Your task to perform on an android device: add a contact in the contacts app Image 0: 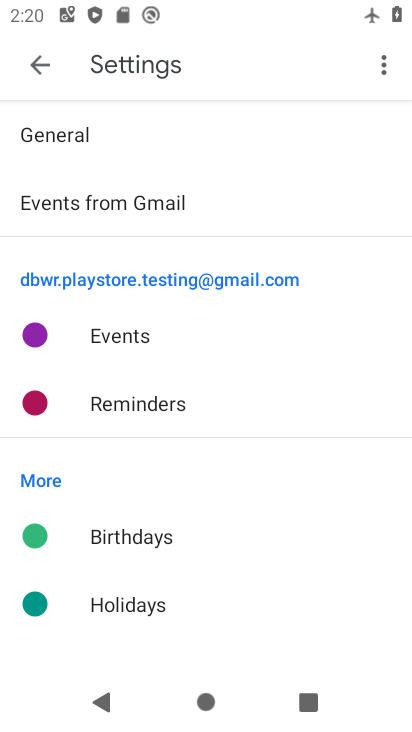
Step 0: press back button
Your task to perform on an android device: add a contact in the contacts app Image 1: 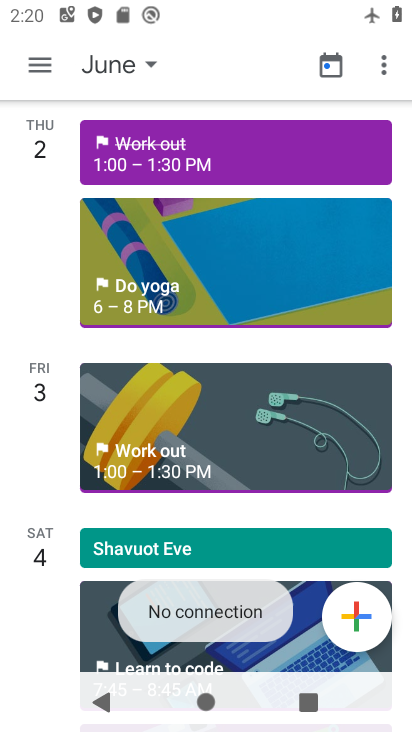
Step 1: press back button
Your task to perform on an android device: add a contact in the contacts app Image 2: 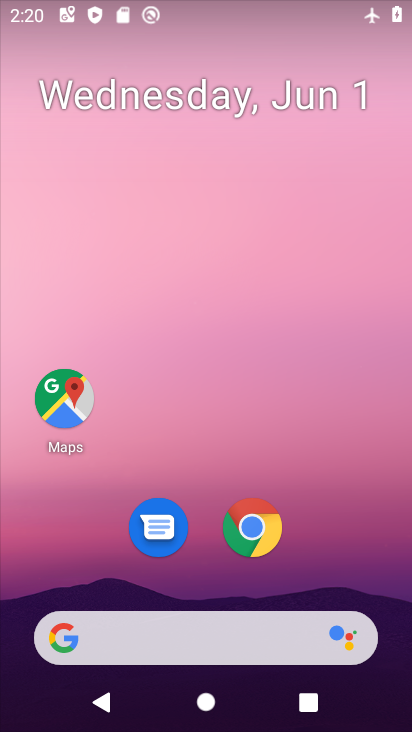
Step 2: drag from (330, 571) to (312, 61)
Your task to perform on an android device: add a contact in the contacts app Image 3: 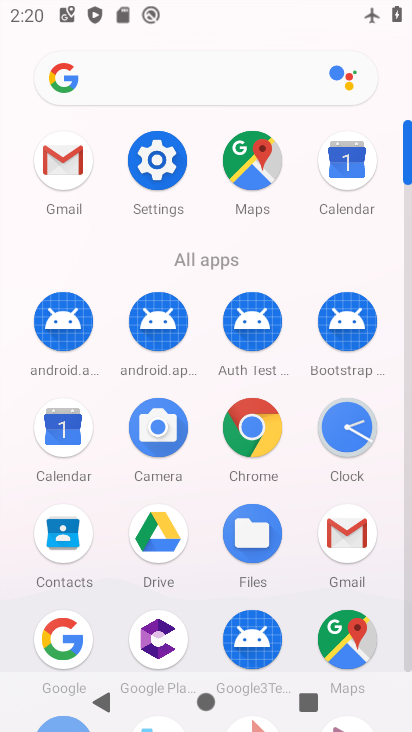
Step 3: click (60, 535)
Your task to perform on an android device: add a contact in the contacts app Image 4: 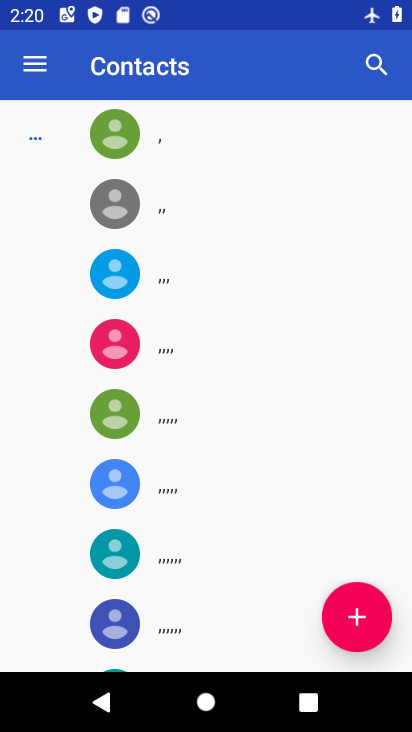
Step 4: click (357, 614)
Your task to perform on an android device: add a contact in the contacts app Image 5: 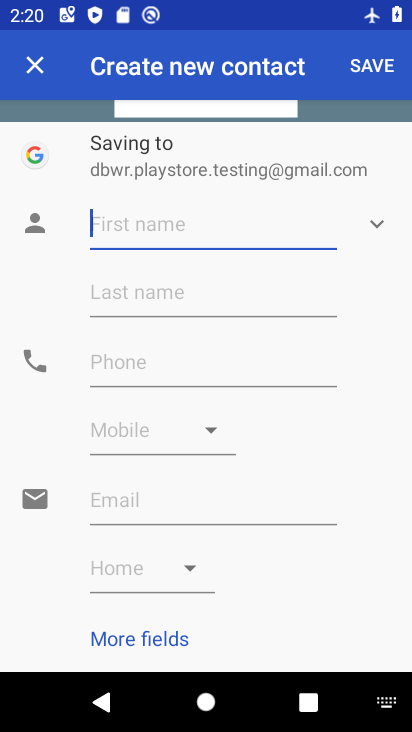
Step 5: type "Devendra"
Your task to perform on an android device: add a contact in the contacts app Image 6: 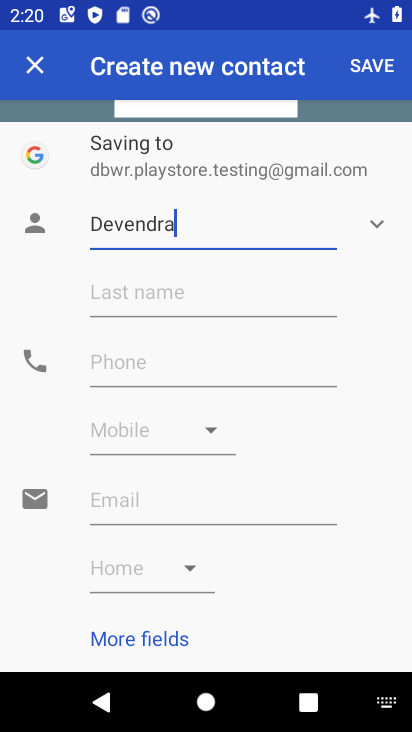
Step 6: click (237, 304)
Your task to perform on an android device: add a contact in the contacts app Image 7: 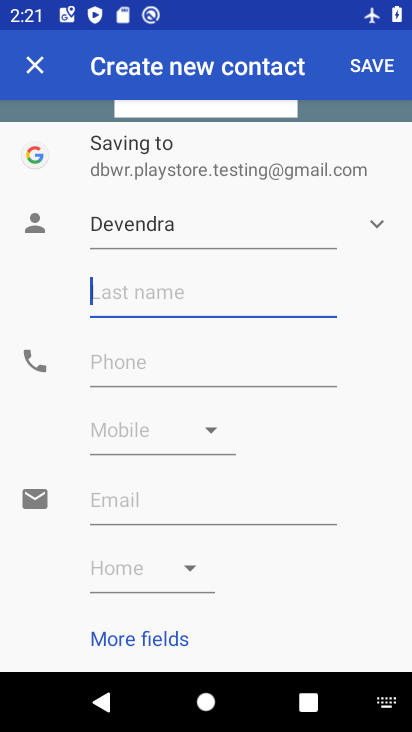
Step 7: type "Dubey"
Your task to perform on an android device: add a contact in the contacts app Image 8: 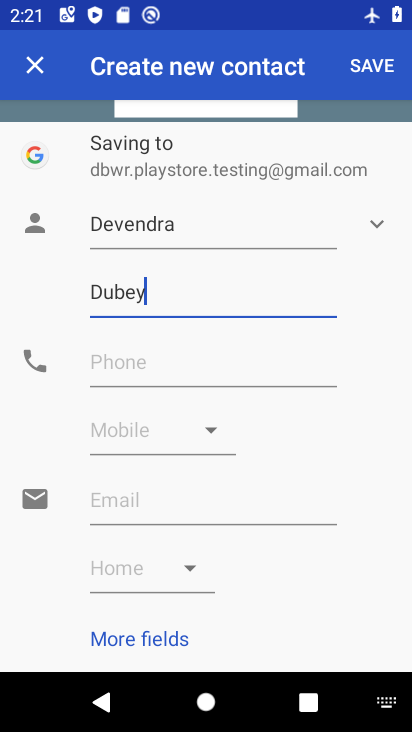
Step 8: type ""
Your task to perform on an android device: add a contact in the contacts app Image 9: 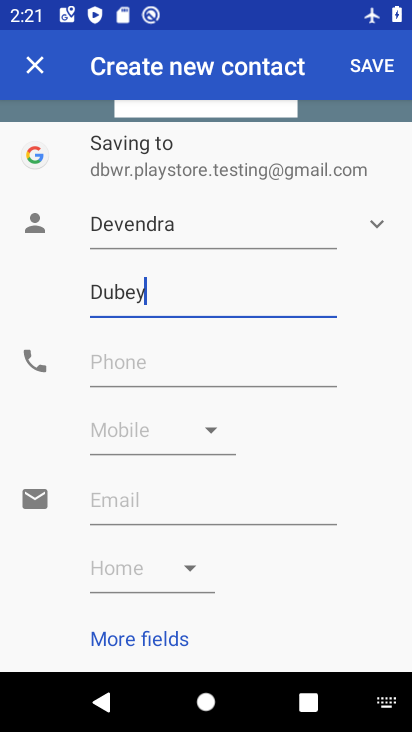
Step 9: click (199, 362)
Your task to perform on an android device: add a contact in the contacts app Image 10: 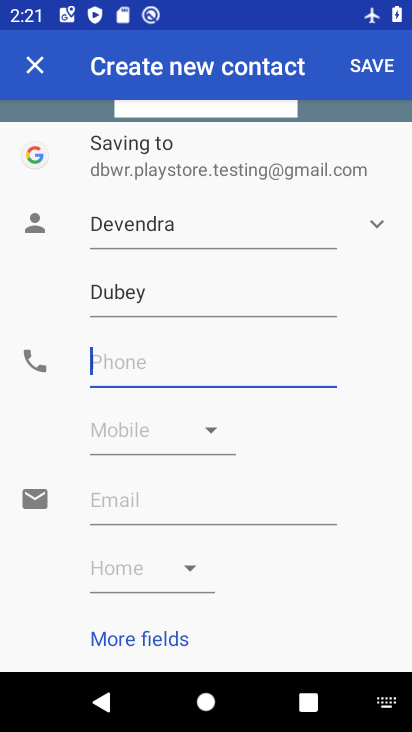
Step 10: type "09988775463"
Your task to perform on an android device: add a contact in the contacts app Image 11: 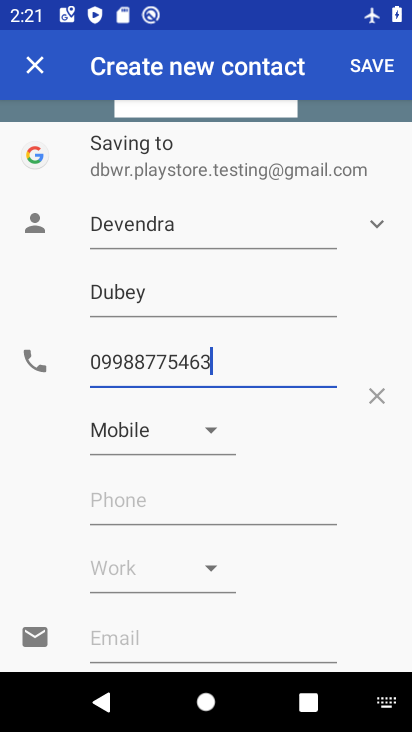
Step 11: click (355, 60)
Your task to perform on an android device: add a contact in the contacts app Image 12: 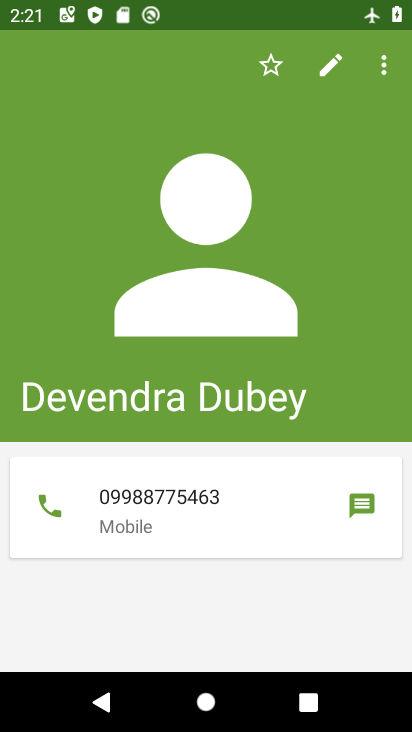
Step 12: task complete